Your task to perform on an android device: Search for "logitech g pro" on walmart.com, select the first entry, and add it to the cart. Image 0: 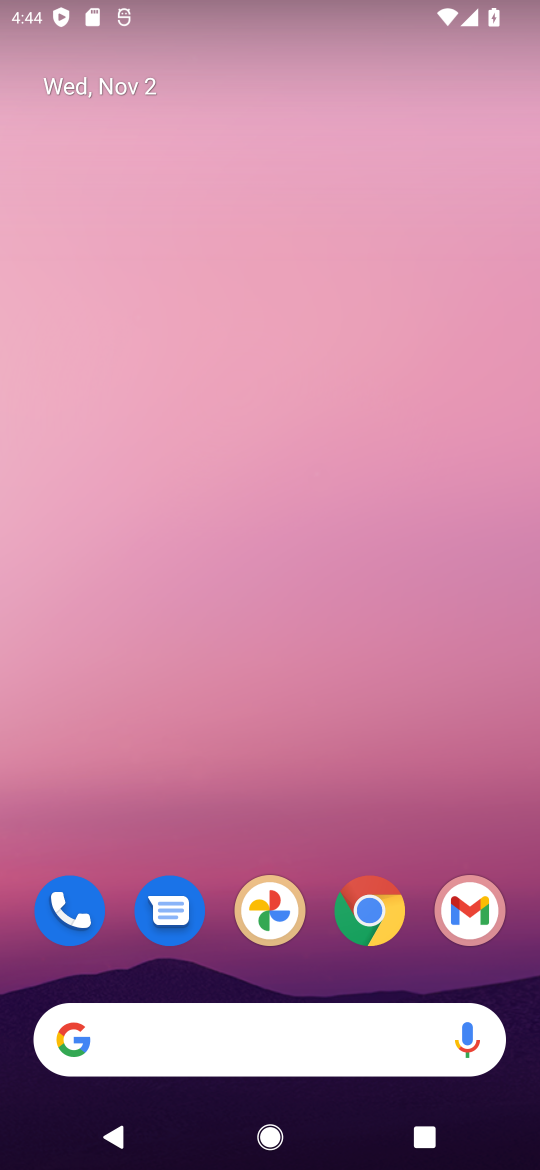
Step 0: click (375, 915)
Your task to perform on an android device: Search for "logitech g pro" on walmart.com, select the first entry, and add it to the cart. Image 1: 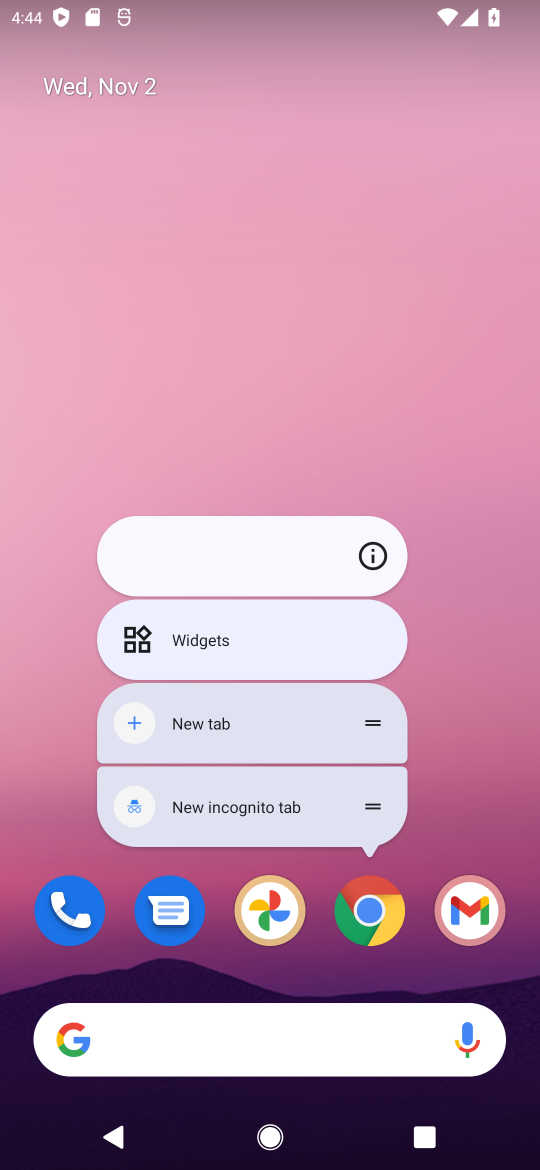
Step 1: click (372, 913)
Your task to perform on an android device: Search for "logitech g pro" on walmart.com, select the first entry, and add it to the cart. Image 2: 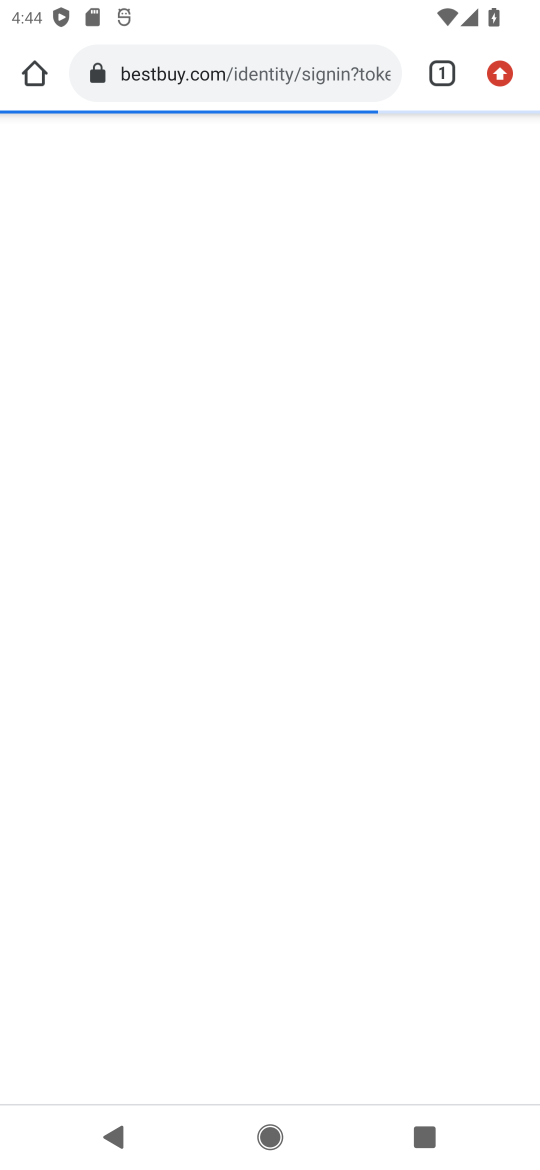
Step 2: click (271, 79)
Your task to perform on an android device: Search for "logitech g pro" on walmart.com, select the first entry, and add it to the cart. Image 3: 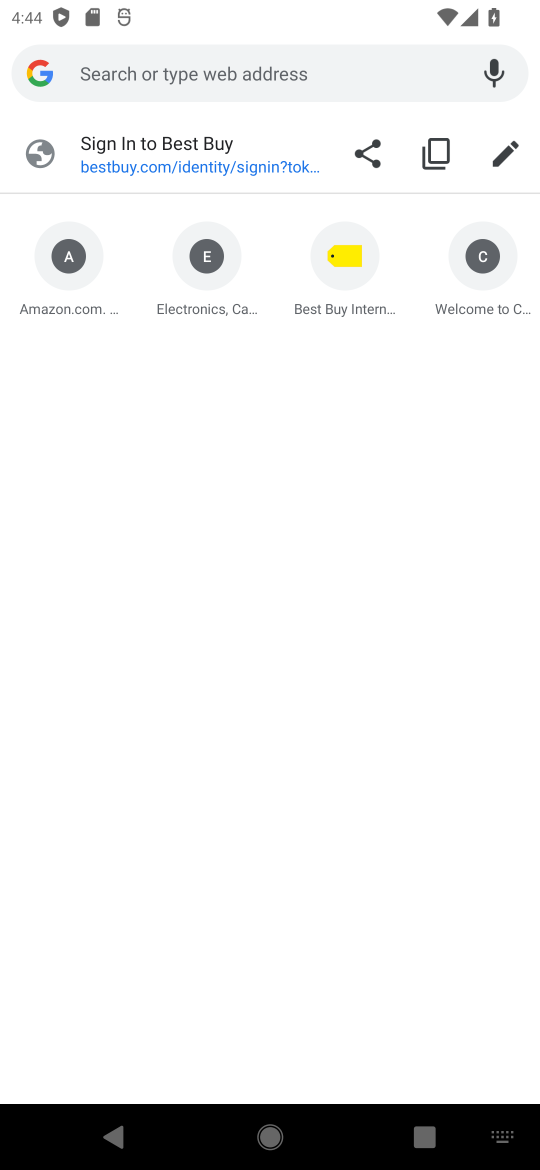
Step 3: type "logitech g pro"
Your task to perform on an android device: Search for "logitech g pro" on walmart.com, select the first entry, and add it to the cart. Image 4: 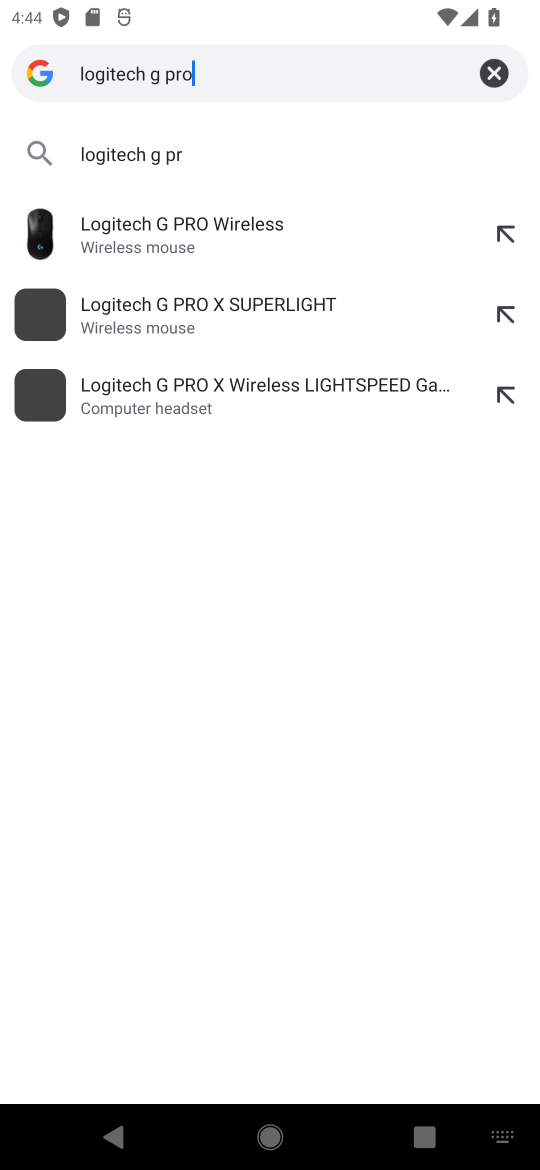
Step 4: type ""
Your task to perform on an android device: Search for "logitech g pro" on walmart.com, select the first entry, and add it to the cart. Image 5: 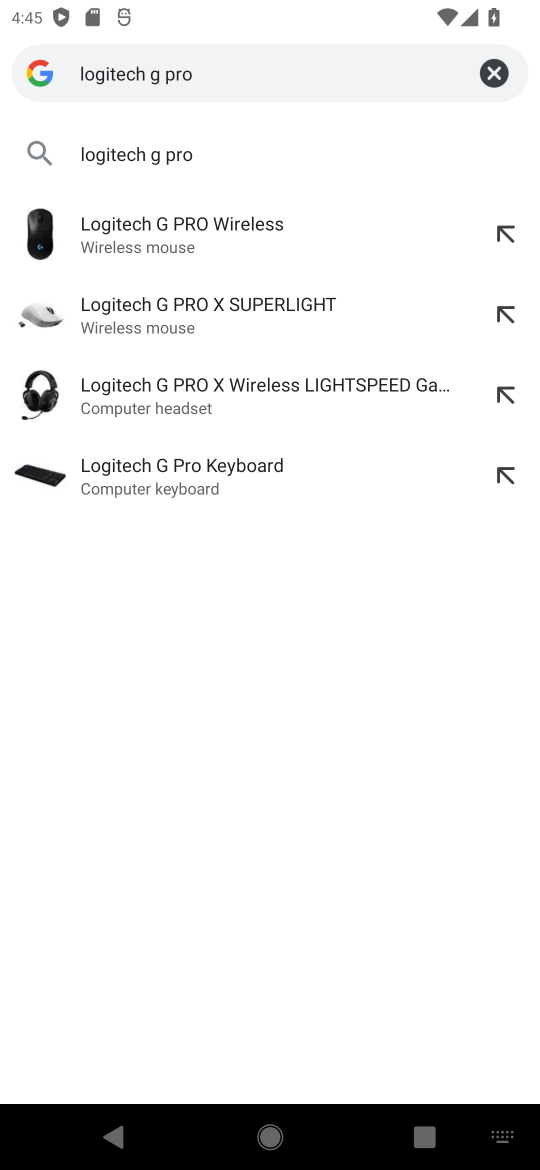
Step 5: press back button
Your task to perform on an android device: Search for "logitech g pro" on walmart.com, select the first entry, and add it to the cart. Image 6: 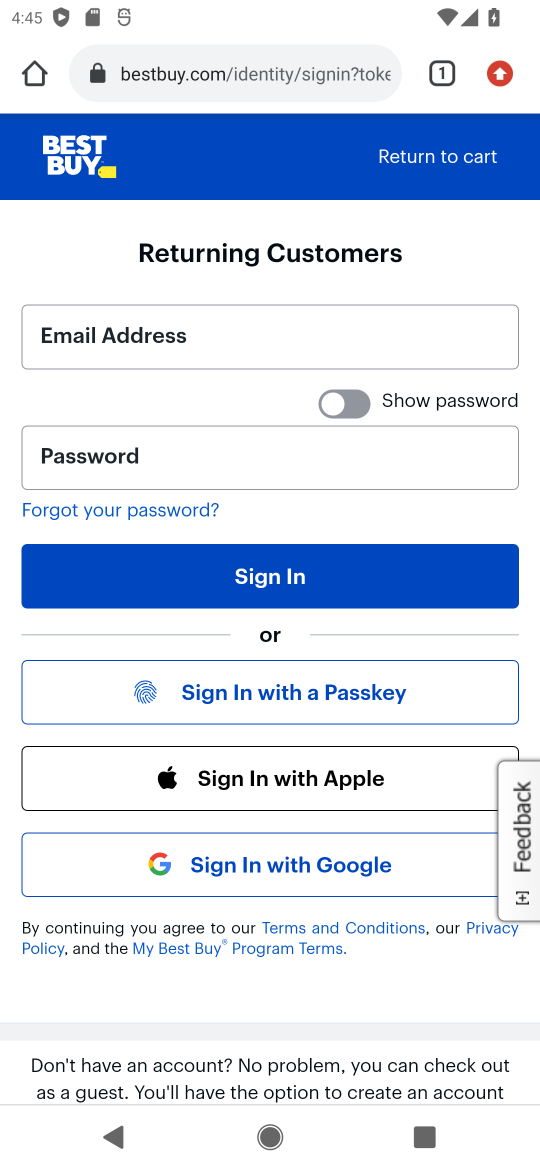
Step 6: click (239, 69)
Your task to perform on an android device: Search for "logitech g pro" on walmart.com, select the first entry, and add it to the cart. Image 7: 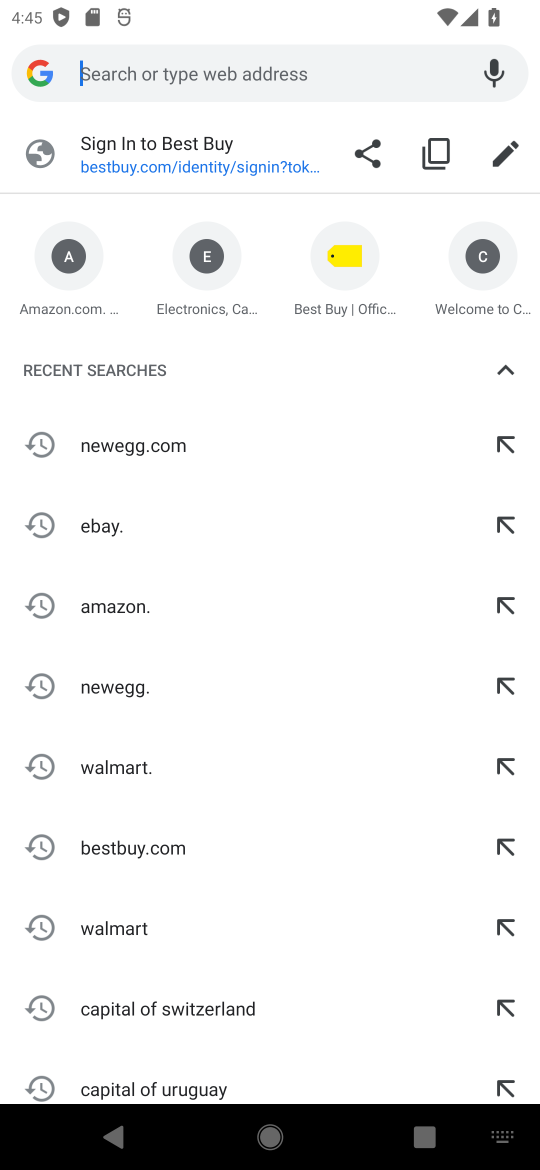
Step 7: click (208, 924)
Your task to perform on an android device: Search for "logitech g pro" on walmart.com, select the first entry, and add it to the cart. Image 8: 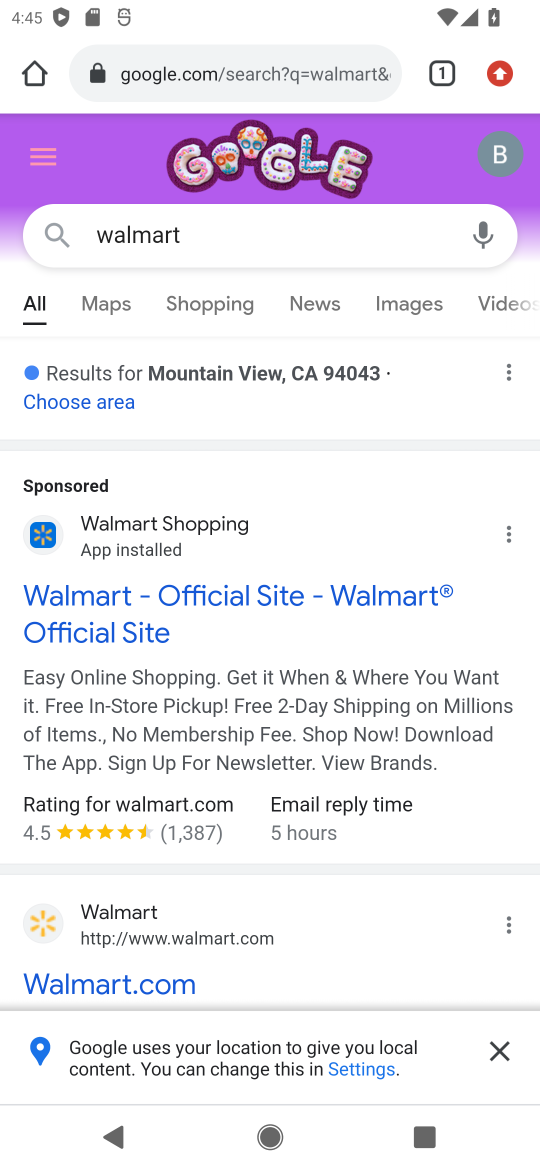
Step 8: click (159, 622)
Your task to perform on an android device: Search for "logitech g pro" on walmart.com, select the first entry, and add it to the cart. Image 9: 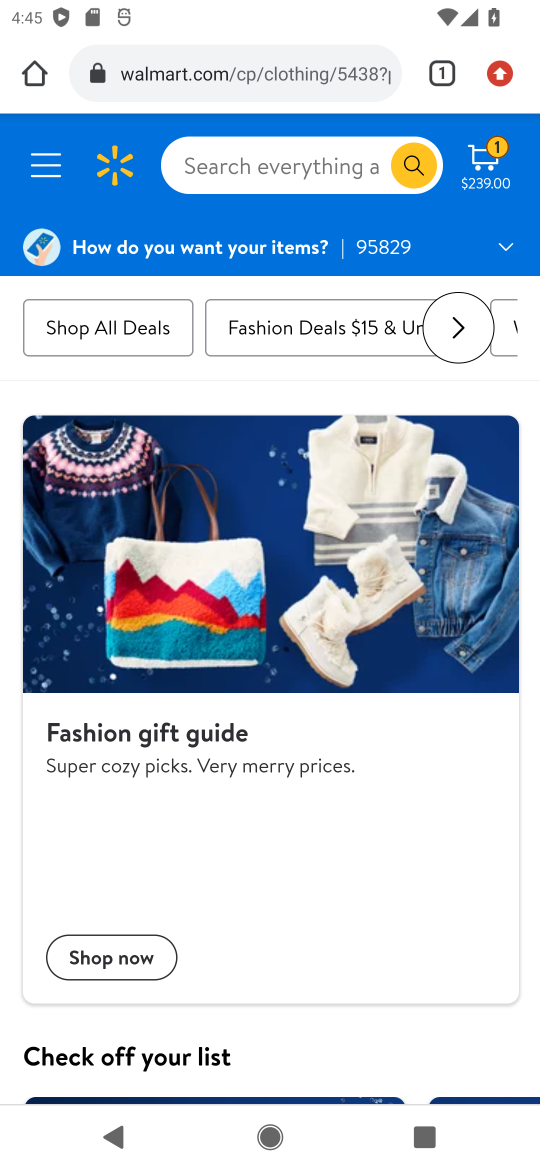
Step 9: click (213, 163)
Your task to perform on an android device: Search for "logitech g pro" on walmart.com, select the first entry, and add it to the cart. Image 10: 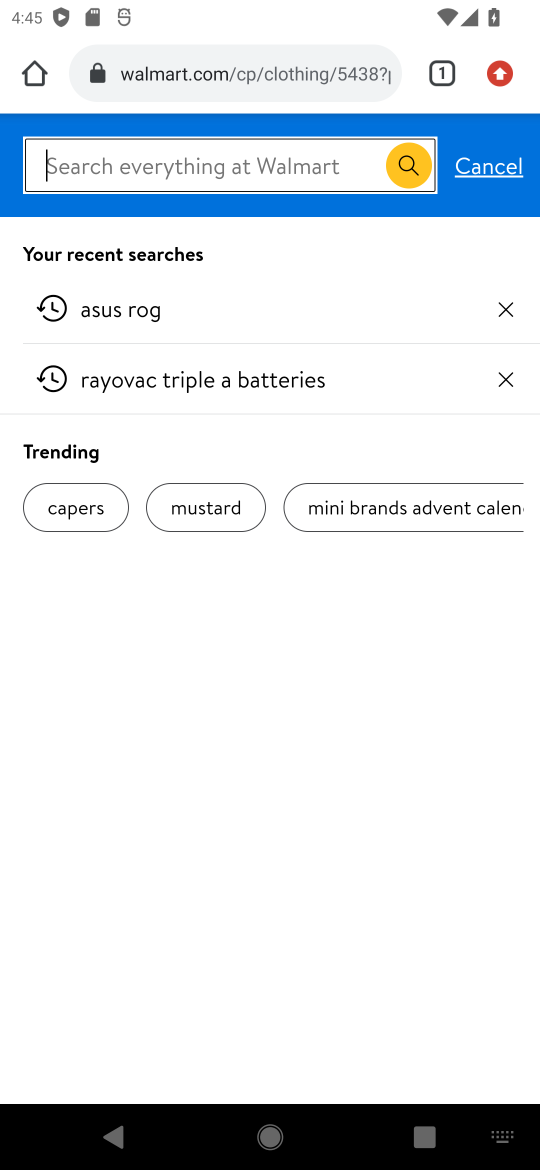
Step 10: type "logitech g pro"
Your task to perform on an android device: Search for "logitech g pro" on walmart.com, select the first entry, and add it to the cart. Image 11: 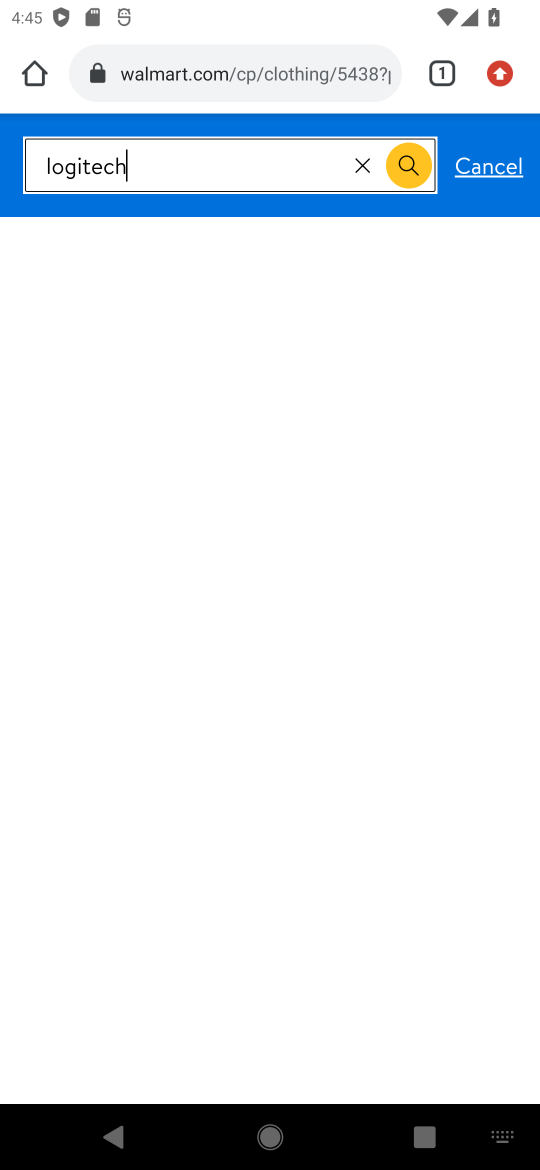
Step 11: type ""
Your task to perform on an android device: Search for "logitech g pro" on walmart.com, select the first entry, and add it to the cart. Image 12: 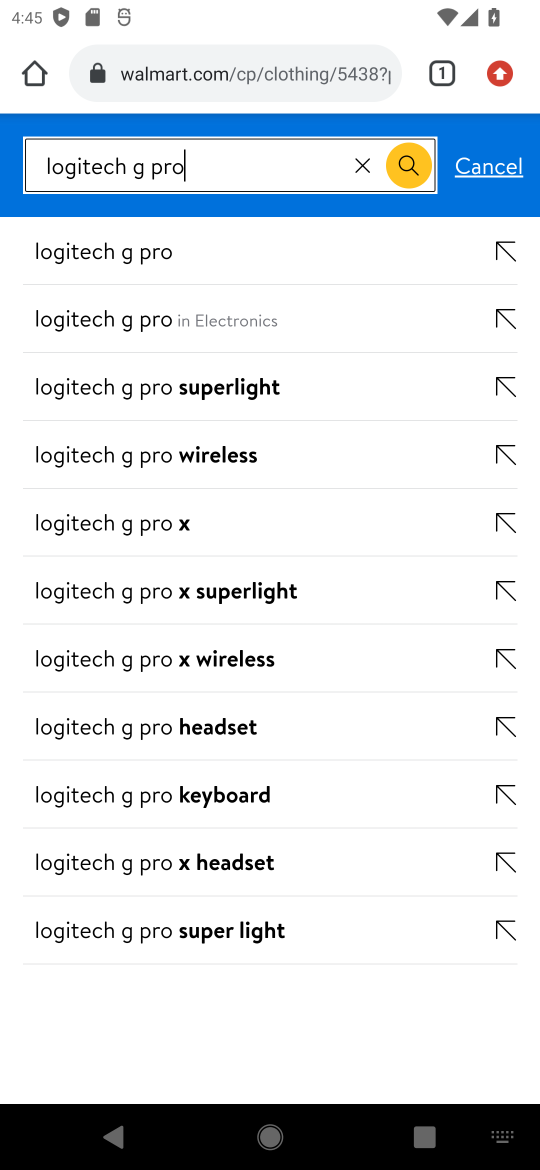
Step 12: click (181, 241)
Your task to perform on an android device: Search for "logitech g pro" on walmart.com, select the first entry, and add it to the cart. Image 13: 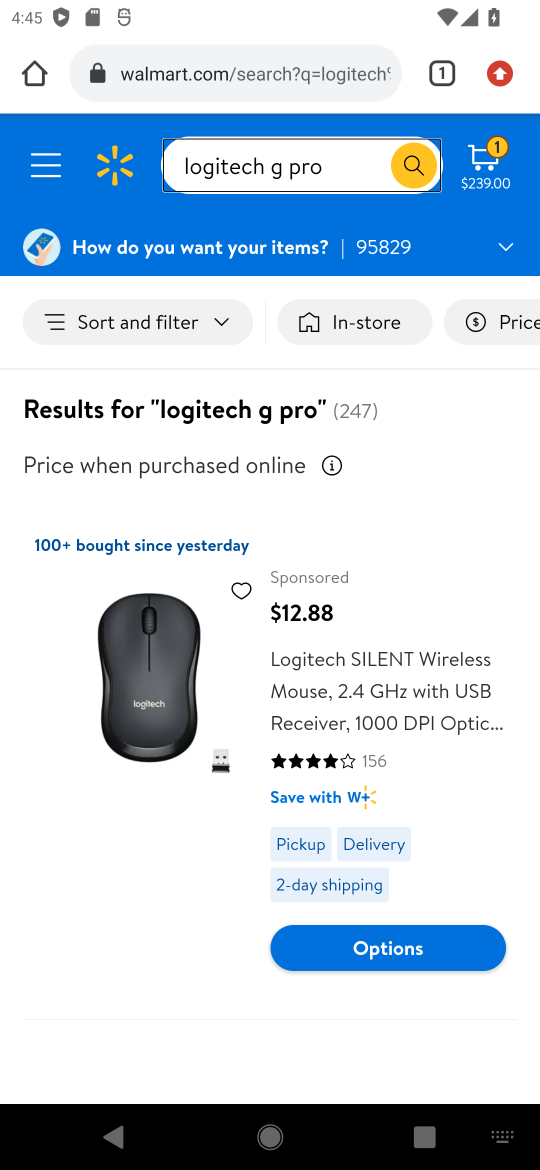
Step 13: drag from (385, 728) to (410, 482)
Your task to perform on an android device: Search for "logitech g pro" on walmart.com, select the first entry, and add it to the cart. Image 14: 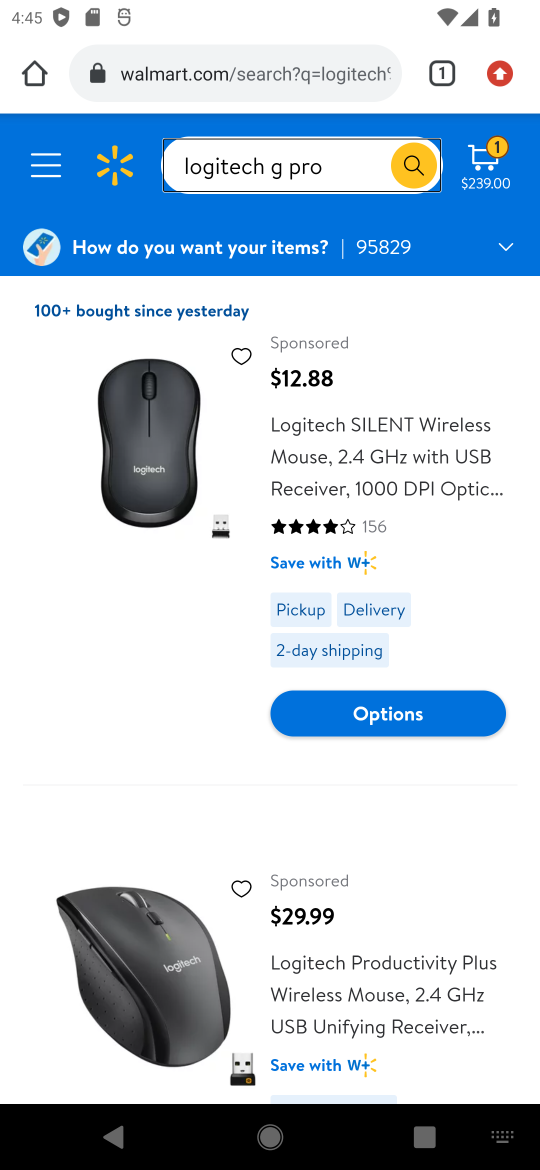
Step 14: drag from (412, 673) to (422, 523)
Your task to perform on an android device: Search for "logitech g pro" on walmart.com, select the first entry, and add it to the cart. Image 15: 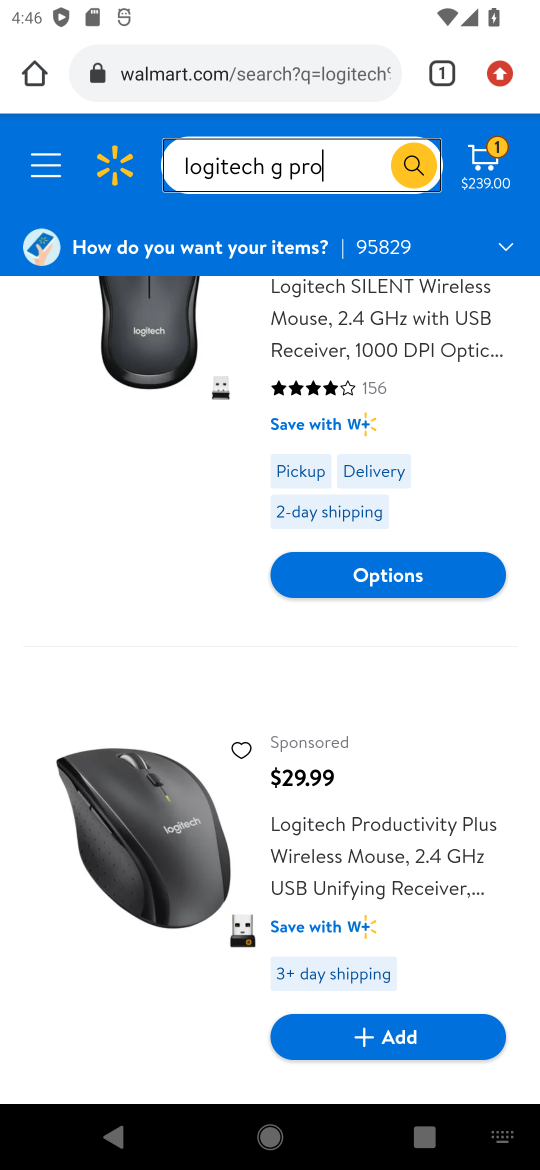
Step 15: drag from (406, 962) to (396, 478)
Your task to perform on an android device: Search for "logitech g pro" on walmart.com, select the first entry, and add it to the cart. Image 16: 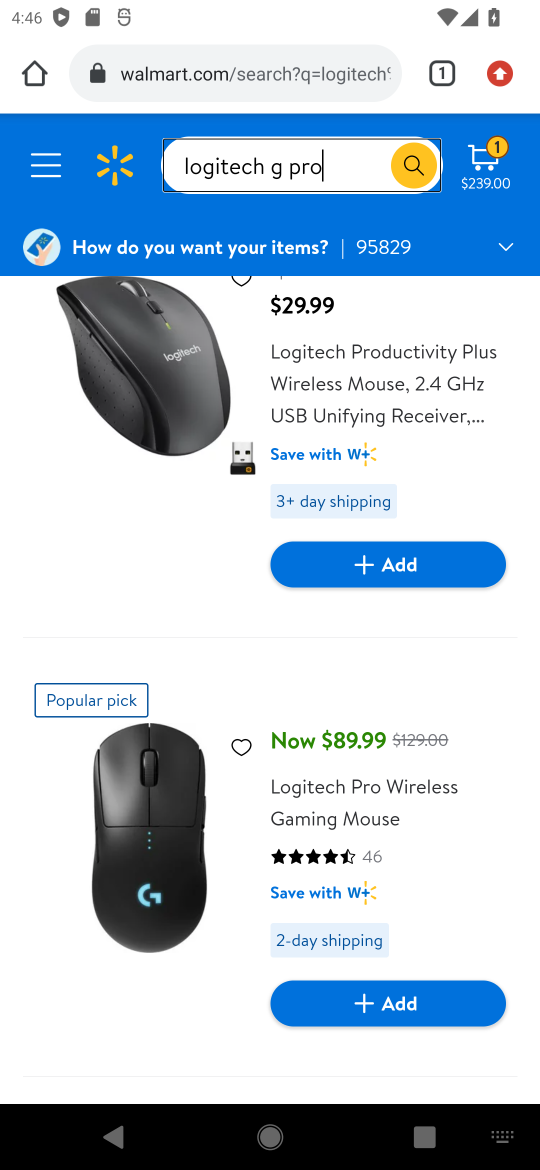
Step 16: click (419, 1016)
Your task to perform on an android device: Search for "logitech g pro" on walmart.com, select the first entry, and add it to the cart. Image 17: 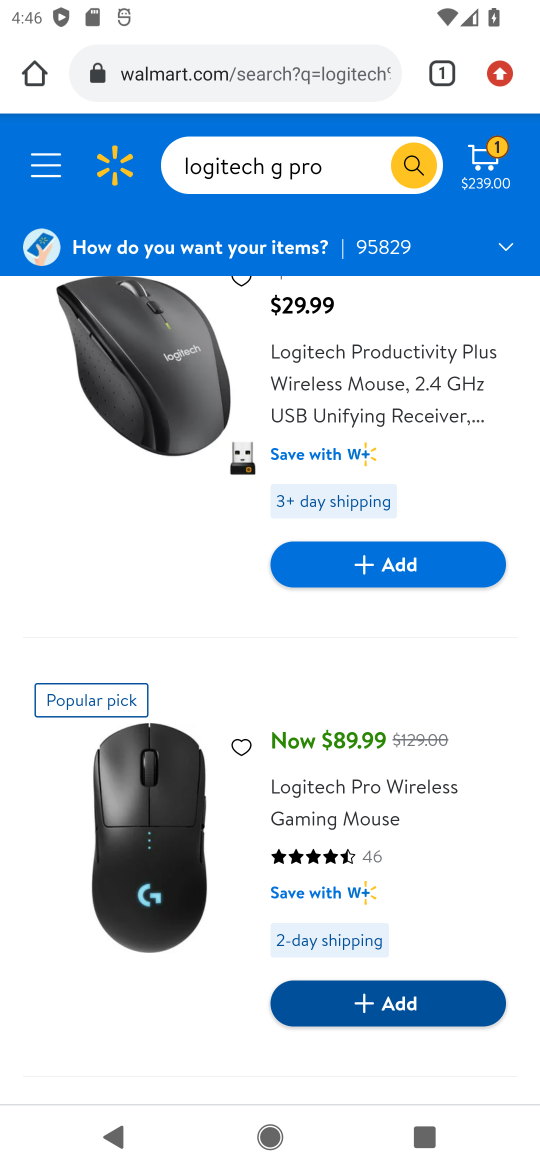
Step 17: click (376, 1000)
Your task to perform on an android device: Search for "logitech g pro" on walmart.com, select the first entry, and add it to the cart. Image 18: 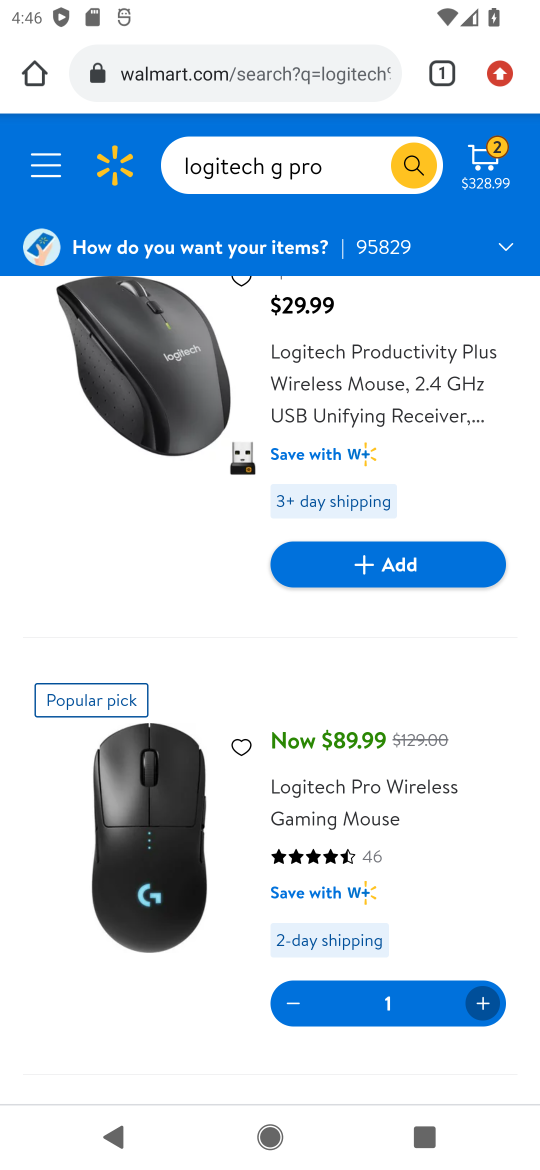
Step 18: click (487, 177)
Your task to perform on an android device: Search for "logitech g pro" on walmart.com, select the first entry, and add it to the cart. Image 19: 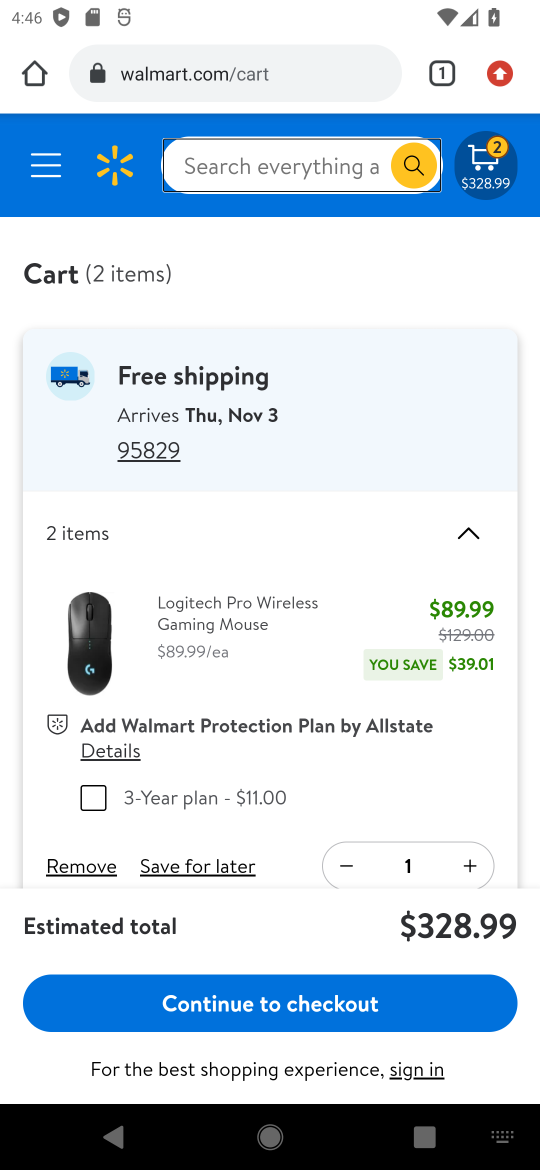
Step 19: click (307, 1005)
Your task to perform on an android device: Search for "logitech g pro" on walmart.com, select the first entry, and add it to the cart. Image 20: 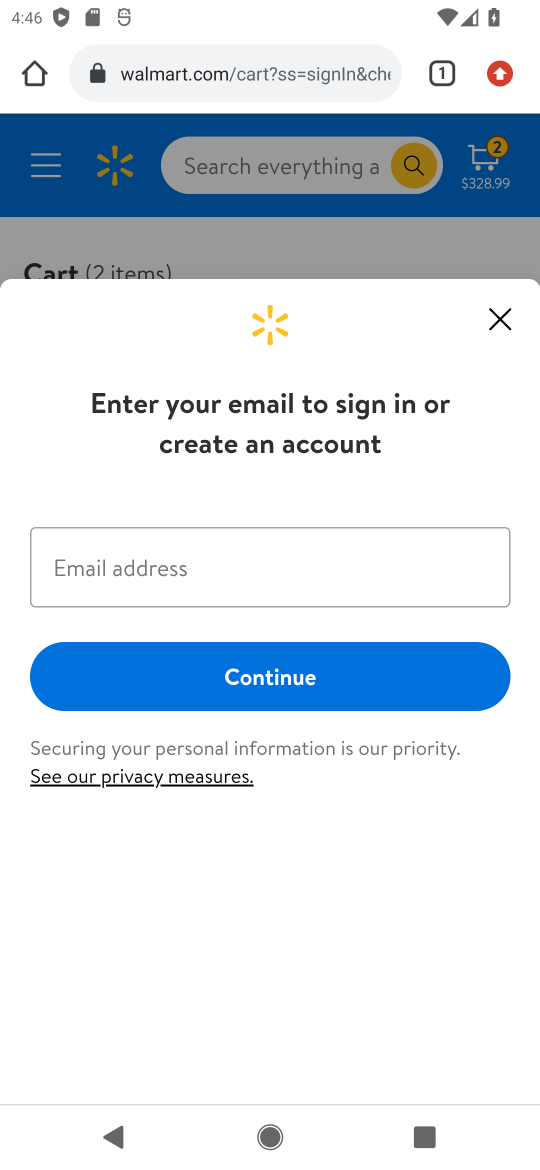
Step 20: click (497, 307)
Your task to perform on an android device: Search for "logitech g pro" on walmart.com, select the first entry, and add it to the cart. Image 21: 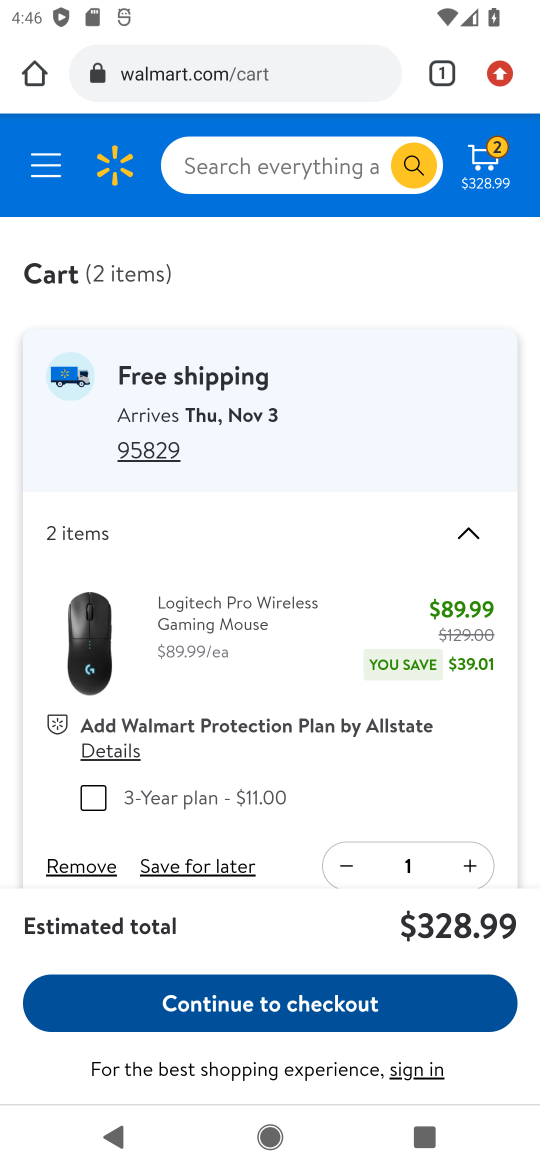
Step 21: task complete